Your task to perform on an android device: What's the price of the Samsung TV? Image 0: 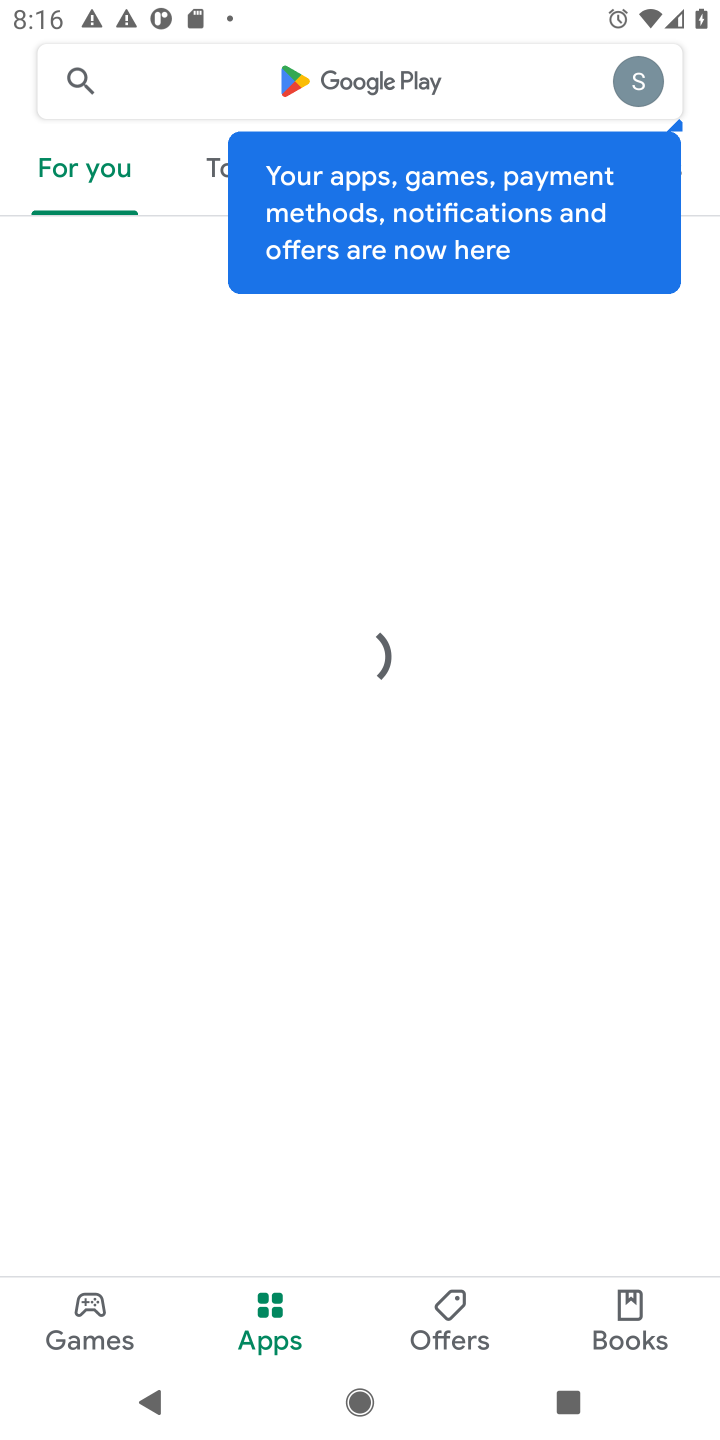
Step 0: press home button
Your task to perform on an android device: What's the price of the Samsung TV? Image 1: 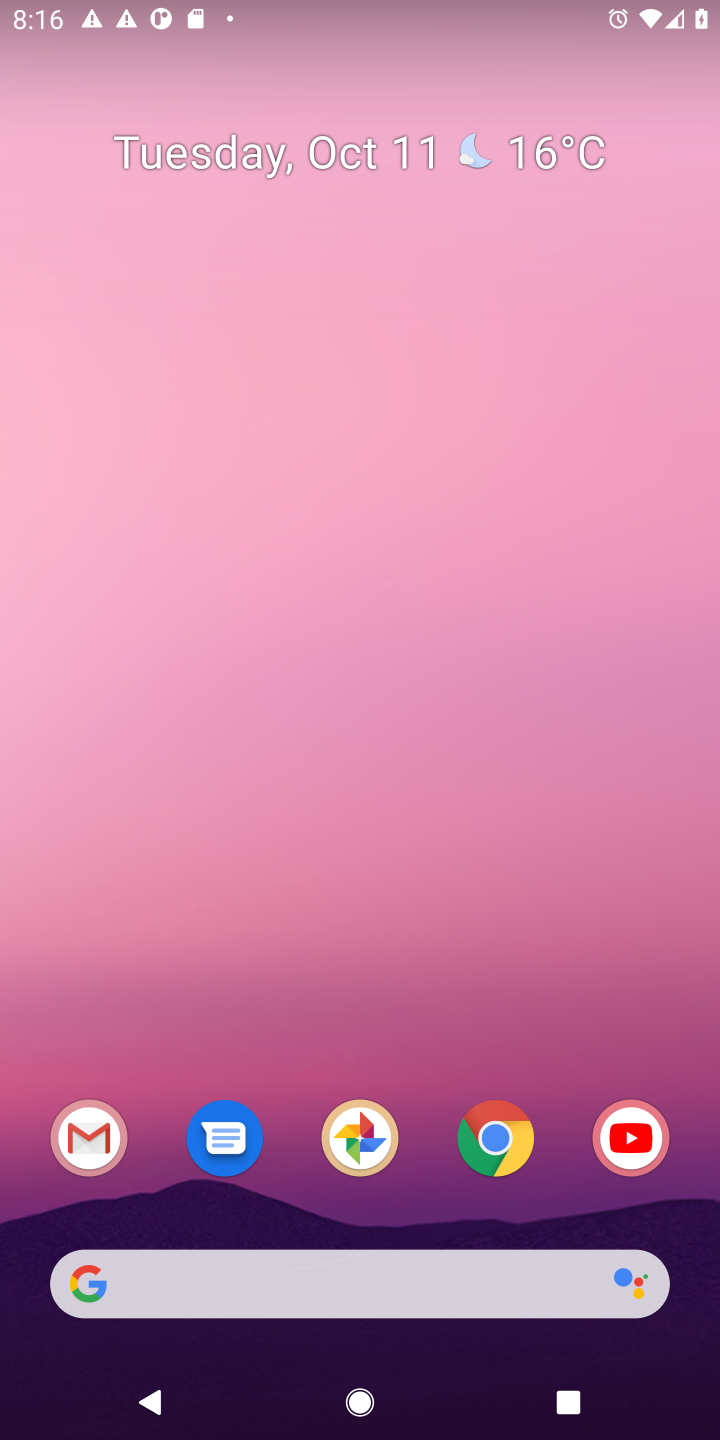
Step 1: click (328, 1283)
Your task to perform on an android device: What's the price of the Samsung TV? Image 2: 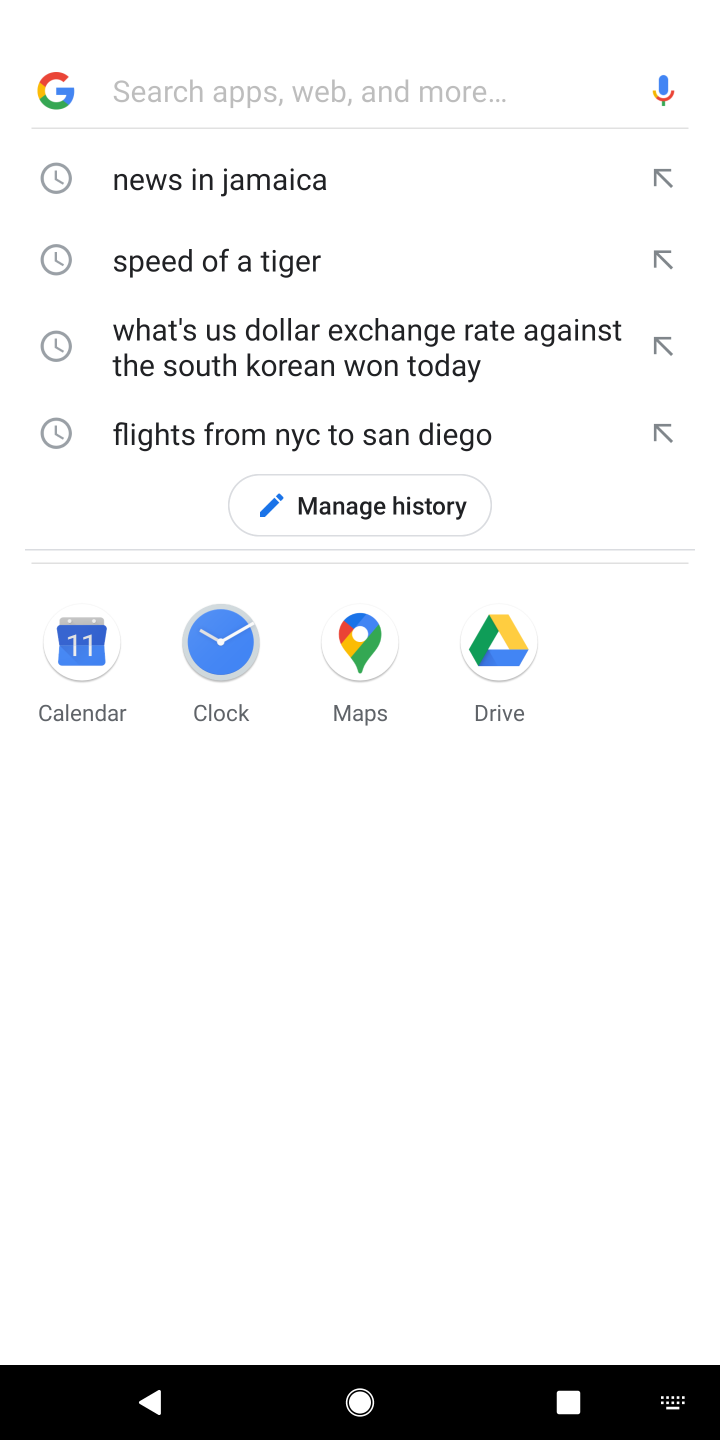
Step 2: type "What's the price of the Samsung TV?"
Your task to perform on an android device: What's the price of the Samsung TV? Image 3: 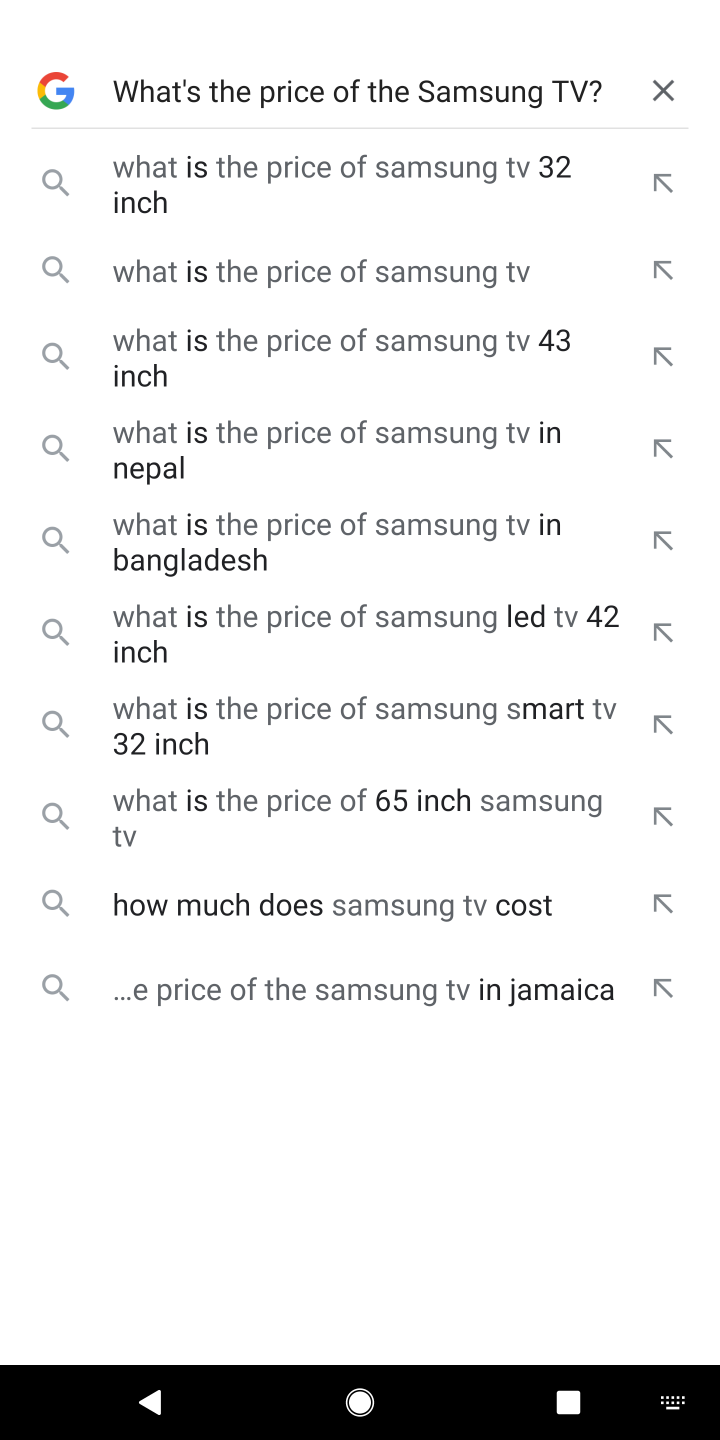
Step 3: click (255, 265)
Your task to perform on an android device: What's the price of the Samsung TV? Image 4: 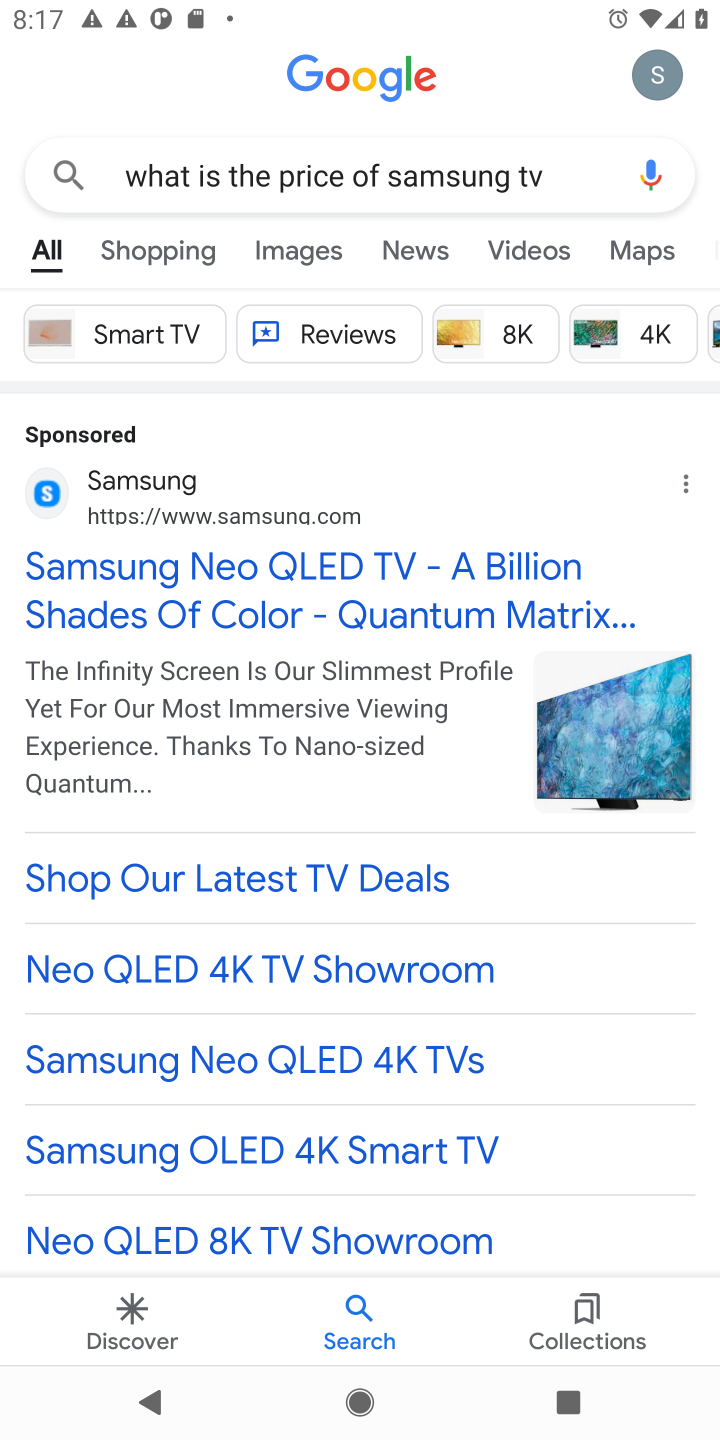
Step 4: click (326, 570)
Your task to perform on an android device: What's the price of the Samsung TV? Image 5: 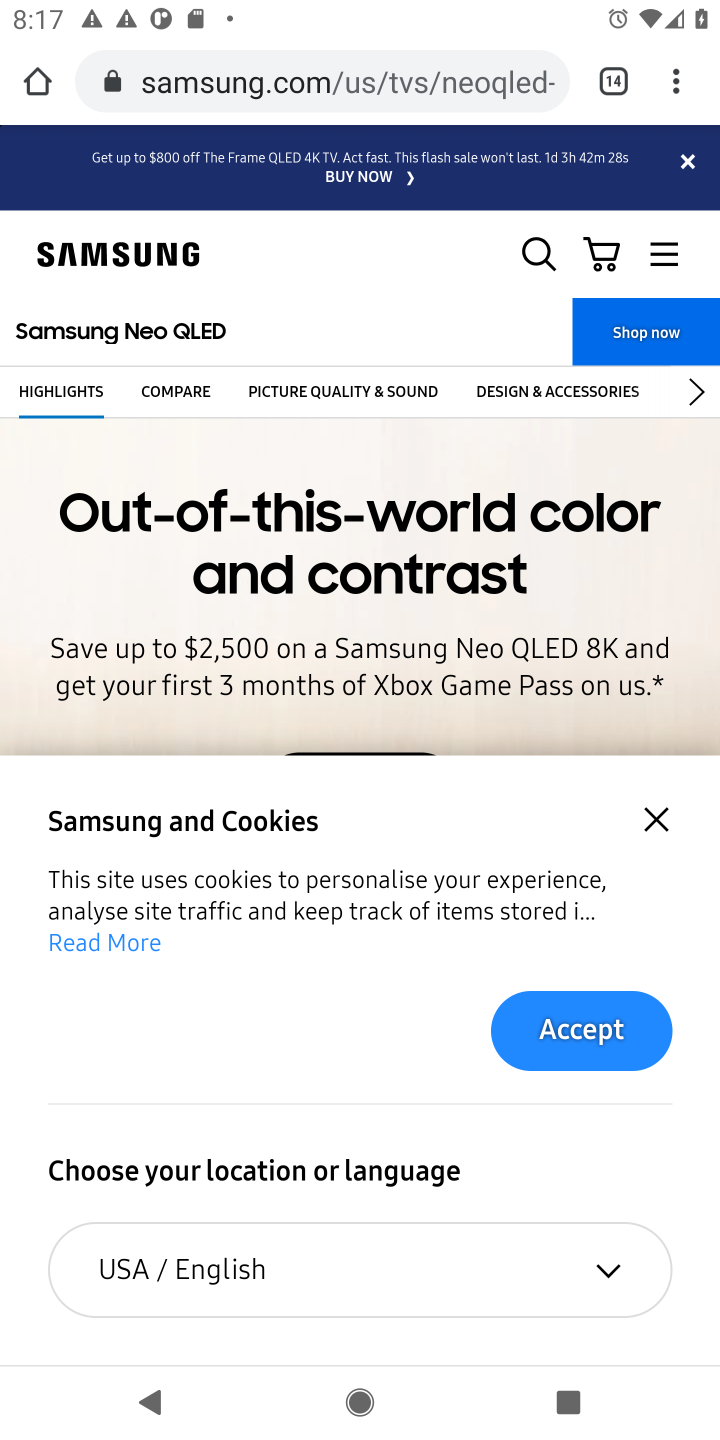
Step 5: click (649, 810)
Your task to perform on an android device: What's the price of the Samsung TV? Image 6: 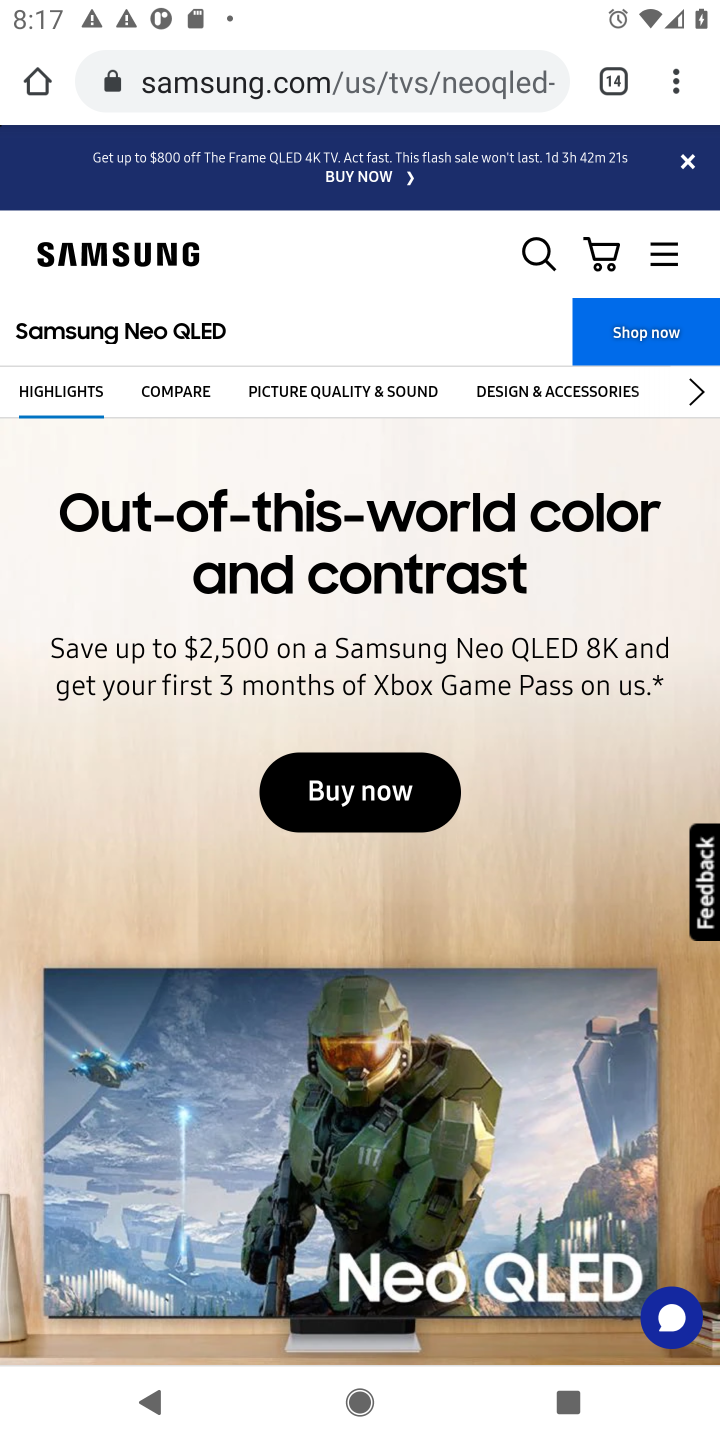
Step 6: drag from (559, 911) to (471, 599)
Your task to perform on an android device: What's the price of the Samsung TV? Image 7: 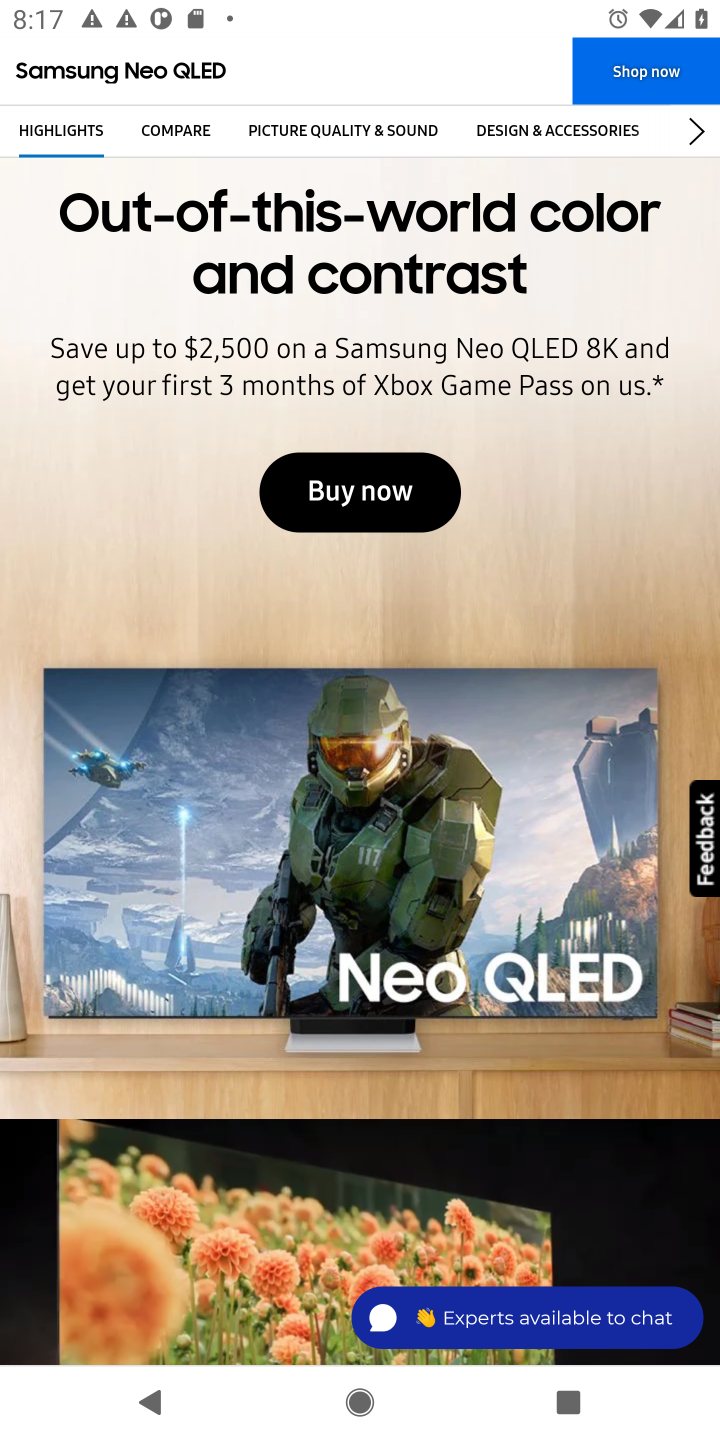
Step 7: drag from (551, 1095) to (507, 905)
Your task to perform on an android device: What's the price of the Samsung TV? Image 8: 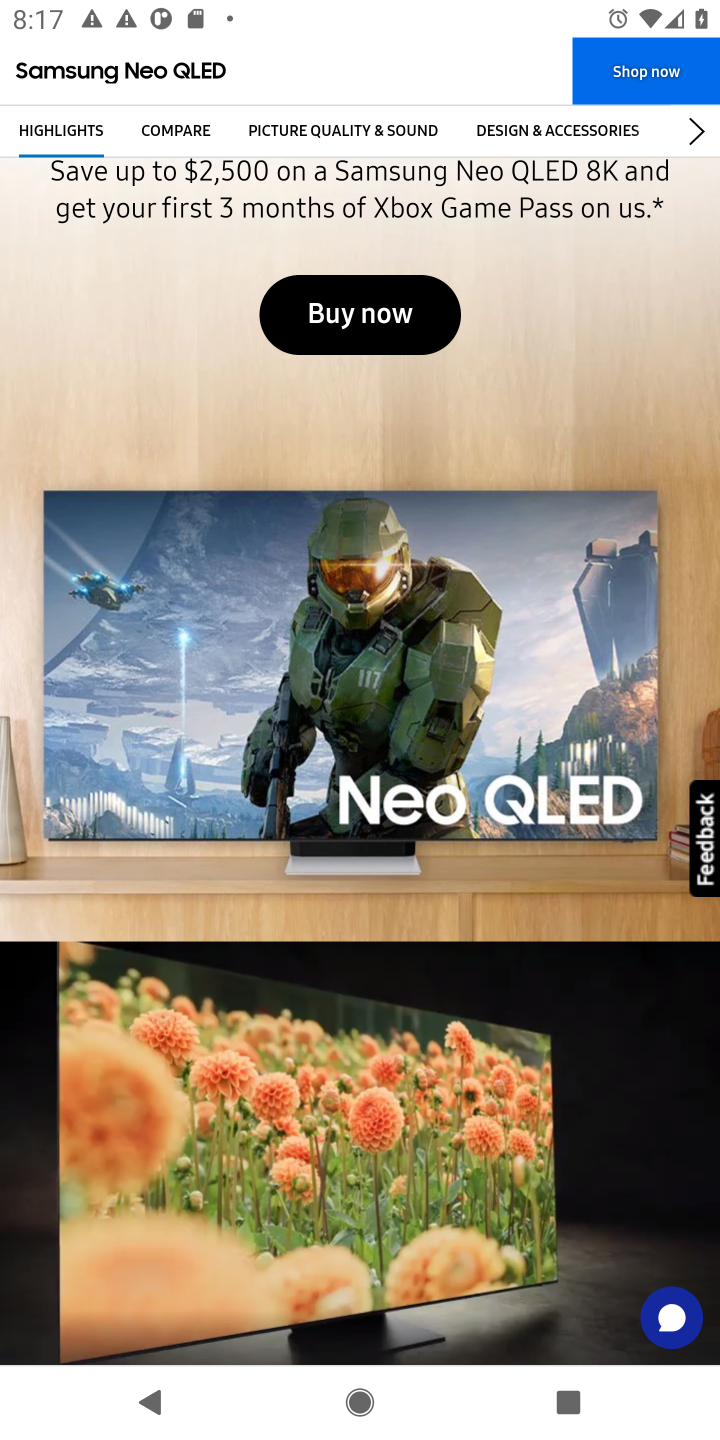
Step 8: click (447, 716)
Your task to perform on an android device: What's the price of the Samsung TV? Image 9: 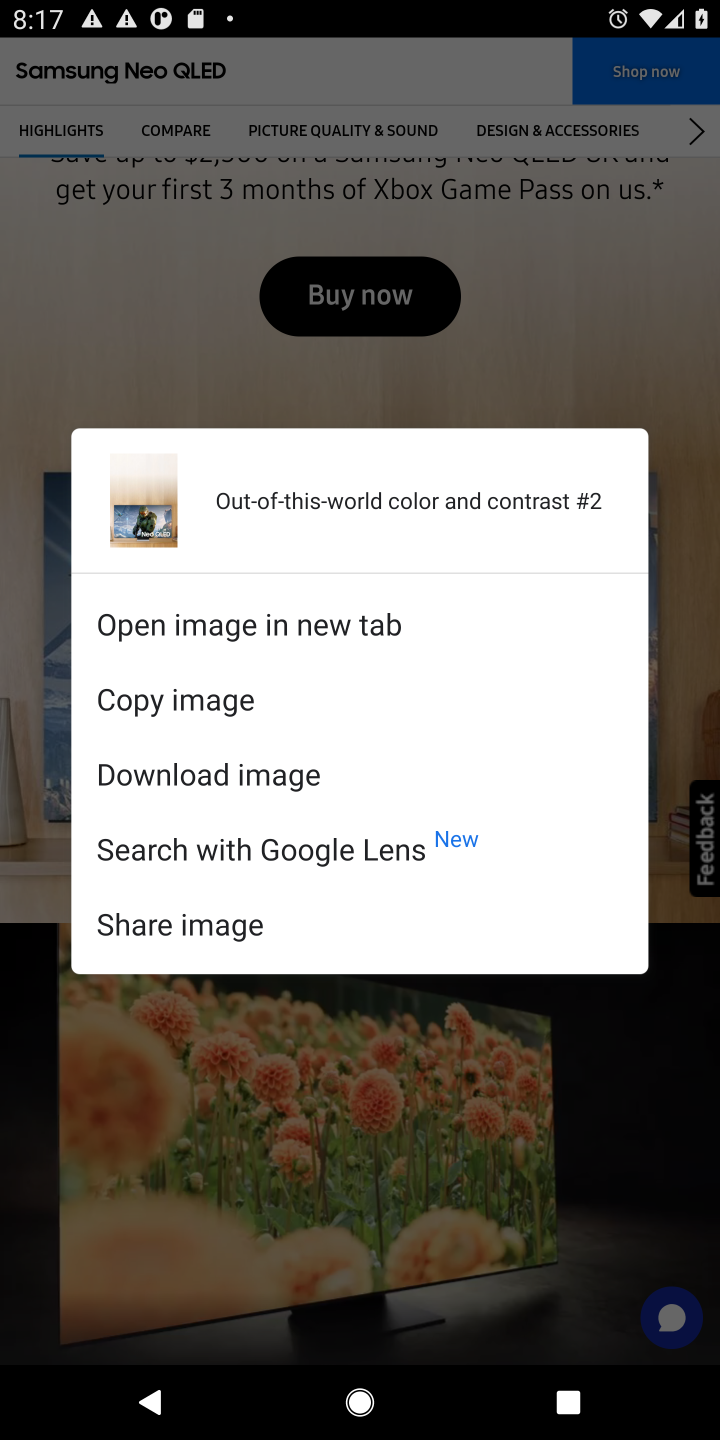
Step 9: click (544, 358)
Your task to perform on an android device: What's the price of the Samsung TV? Image 10: 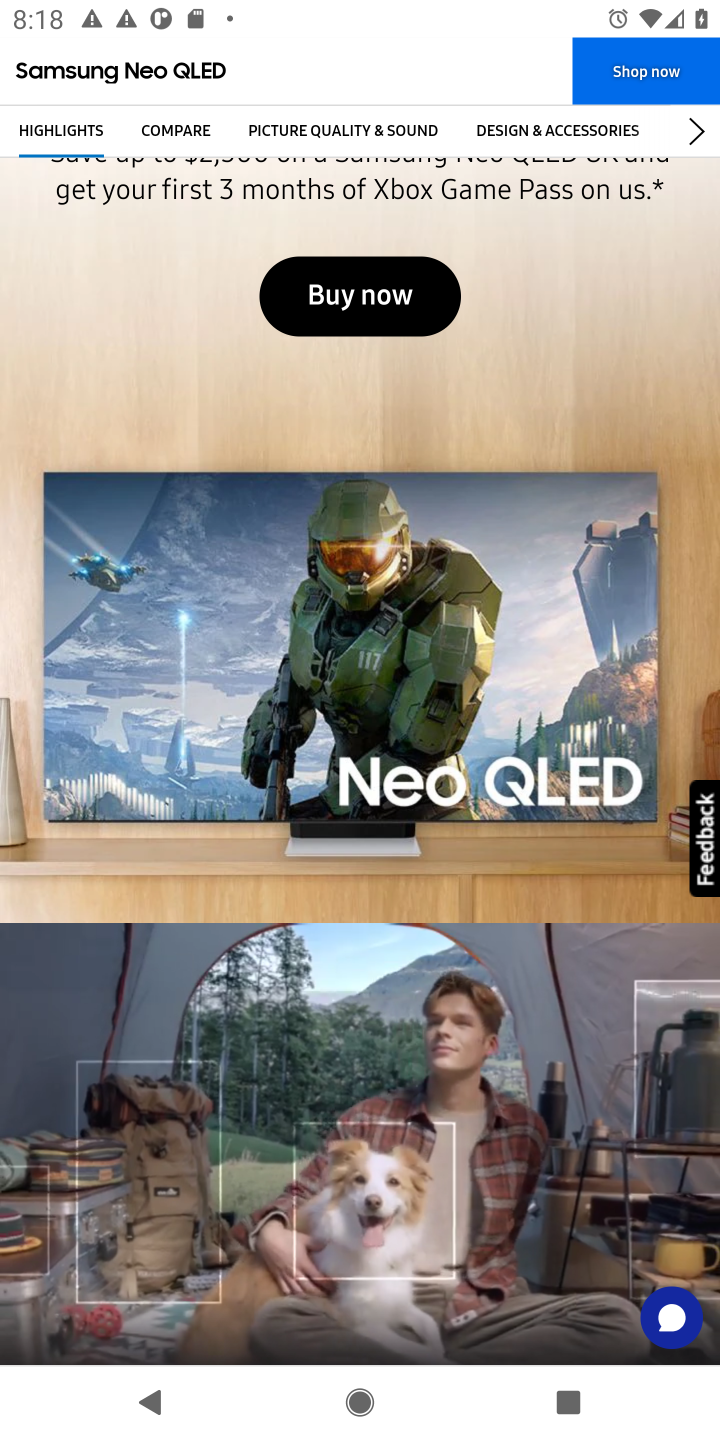
Step 10: click (494, 740)
Your task to perform on an android device: What's the price of the Samsung TV? Image 11: 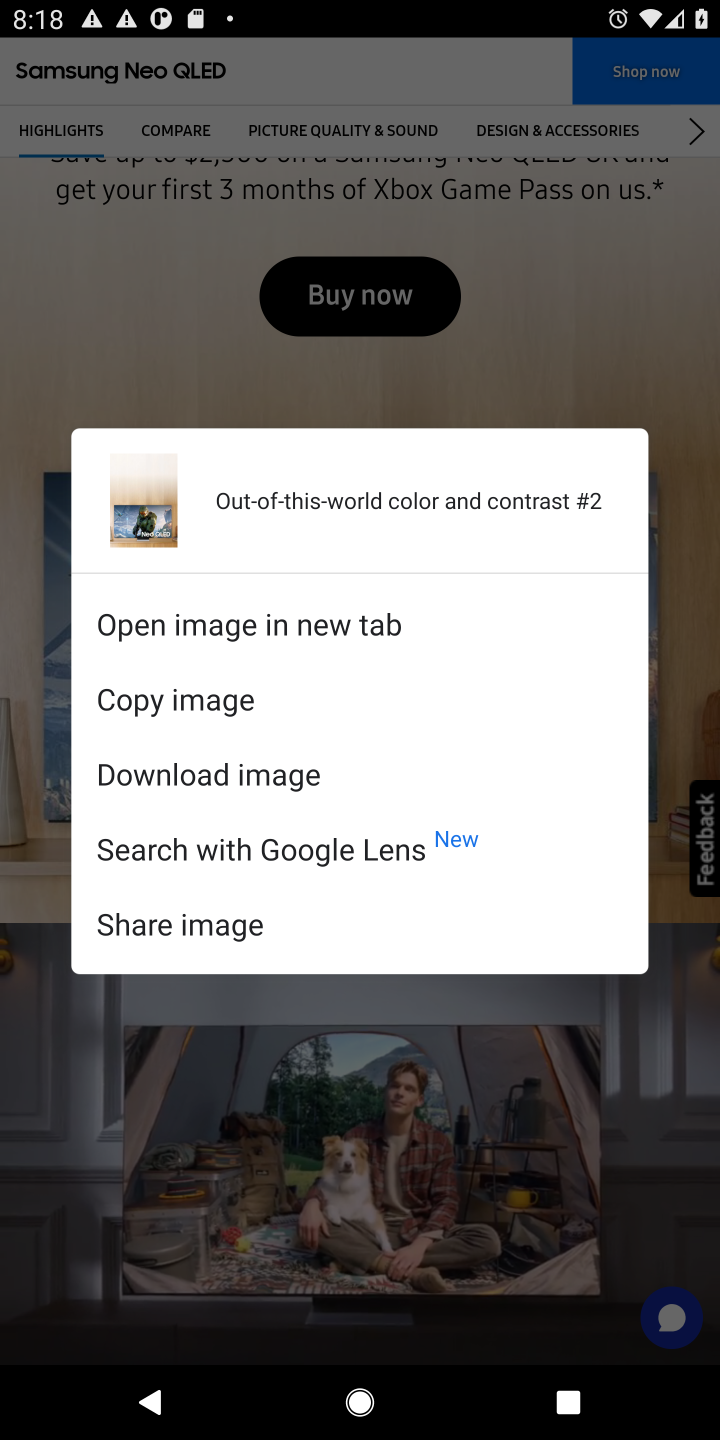
Step 11: click (497, 368)
Your task to perform on an android device: What's the price of the Samsung TV? Image 12: 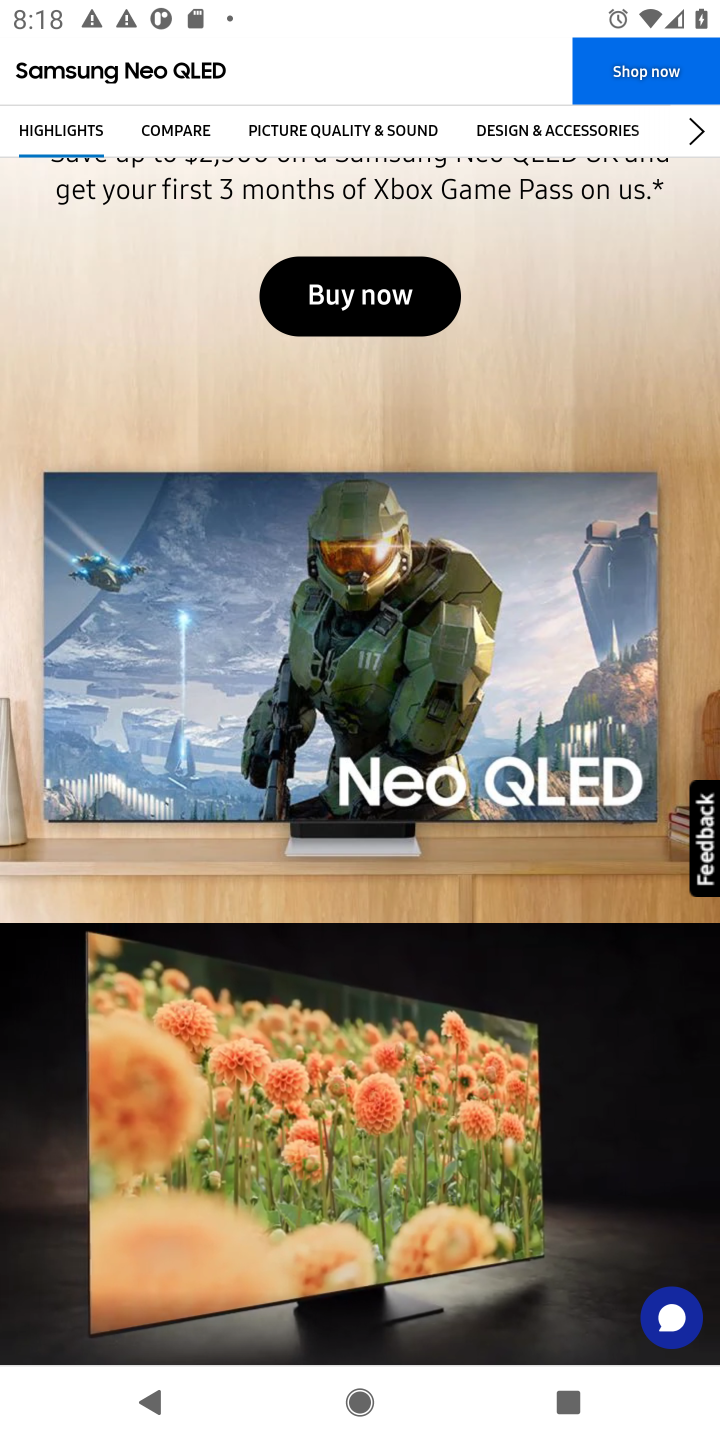
Step 12: task complete